Your task to perform on an android device: Open Google Chrome and click the shortcut for Amazon.com Image 0: 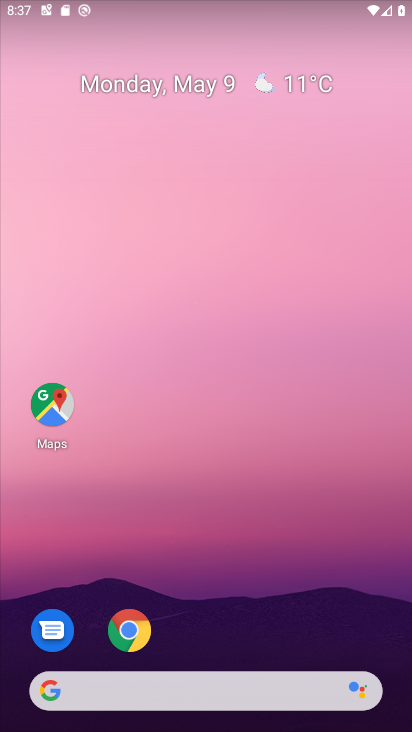
Step 0: click (127, 644)
Your task to perform on an android device: Open Google Chrome and click the shortcut for Amazon.com Image 1: 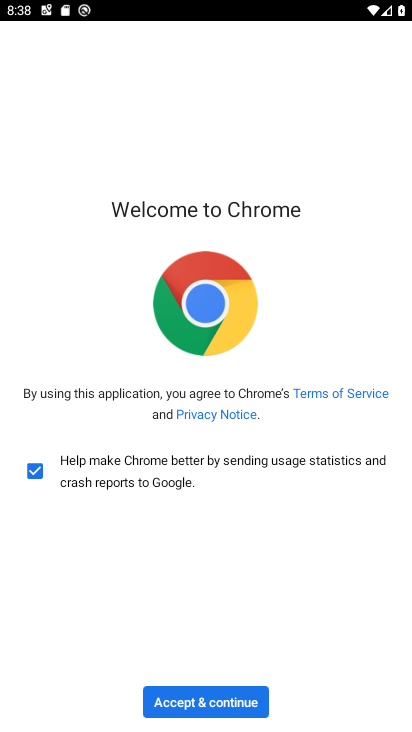
Step 1: click (200, 707)
Your task to perform on an android device: Open Google Chrome and click the shortcut for Amazon.com Image 2: 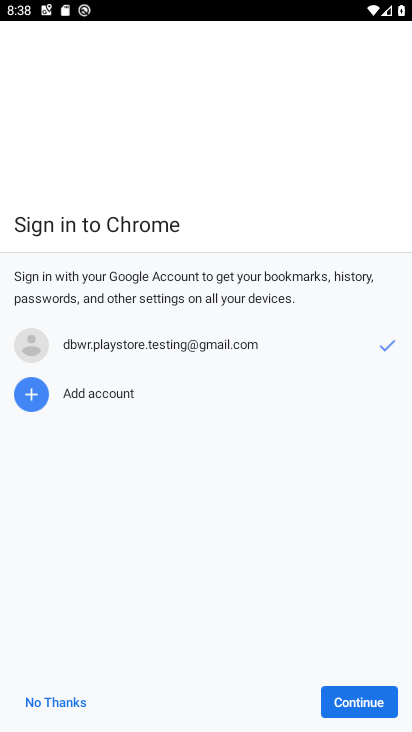
Step 2: click (339, 699)
Your task to perform on an android device: Open Google Chrome and click the shortcut for Amazon.com Image 3: 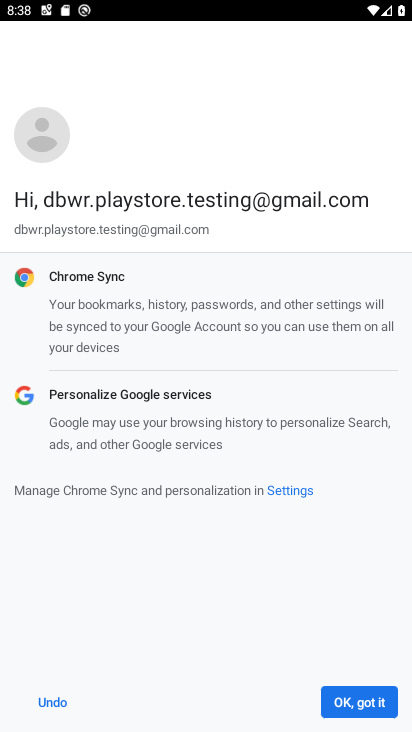
Step 3: click (339, 699)
Your task to perform on an android device: Open Google Chrome and click the shortcut for Amazon.com Image 4: 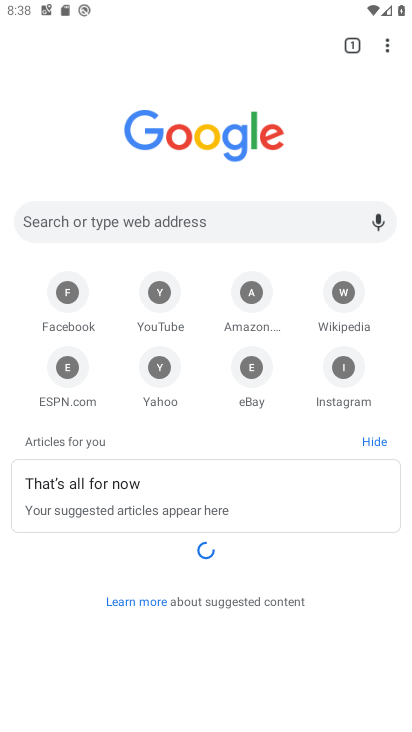
Step 4: click (247, 297)
Your task to perform on an android device: Open Google Chrome and click the shortcut for Amazon.com Image 5: 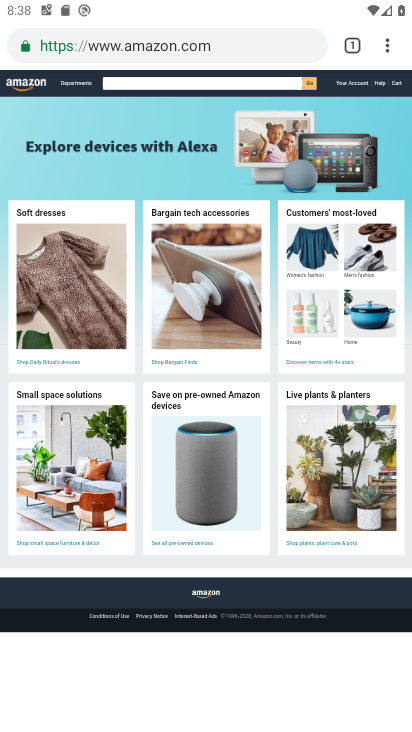
Step 5: task complete